Your task to perform on an android device: Open network settings Image 0: 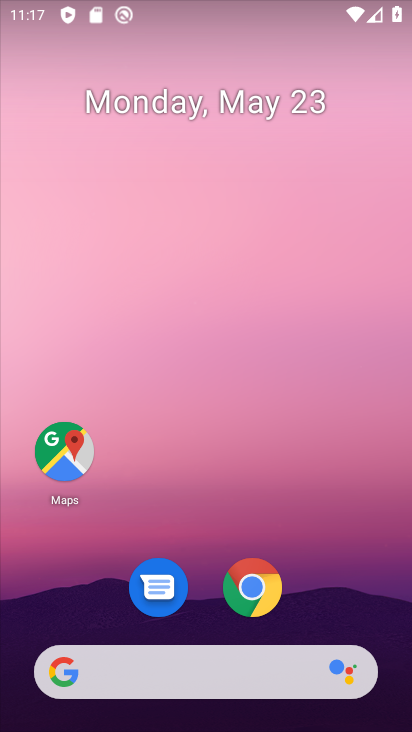
Step 0: drag from (358, 619) to (289, 348)
Your task to perform on an android device: Open network settings Image 1: 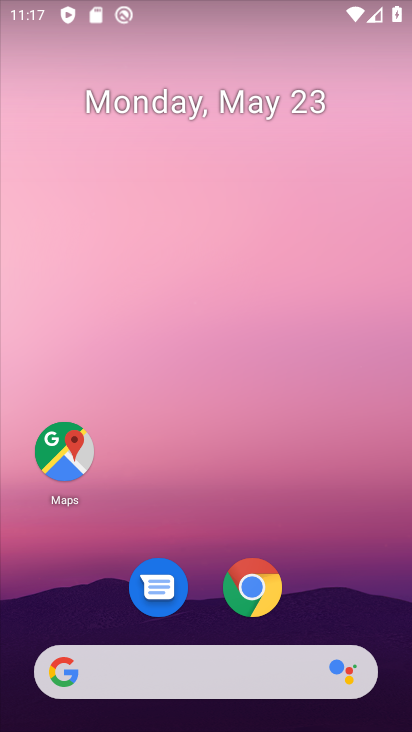
Step 1: drag from (336, 594) to (260, 199)
Your task to perform on an android device: Open network settings Image 2: 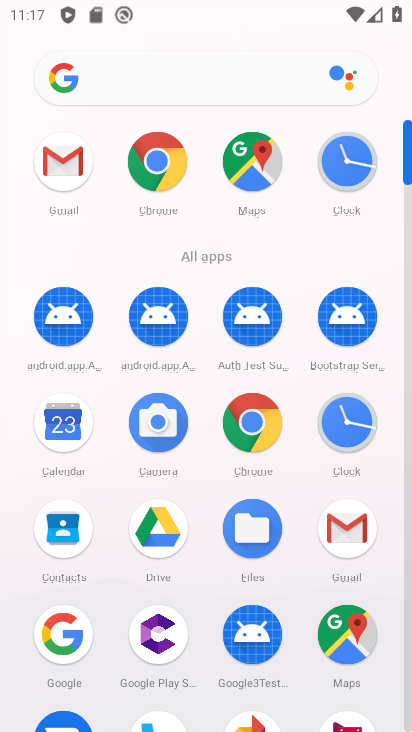
Step 2: click (411, 719)
Your task to perform on an android device: Open network settings Image 3: 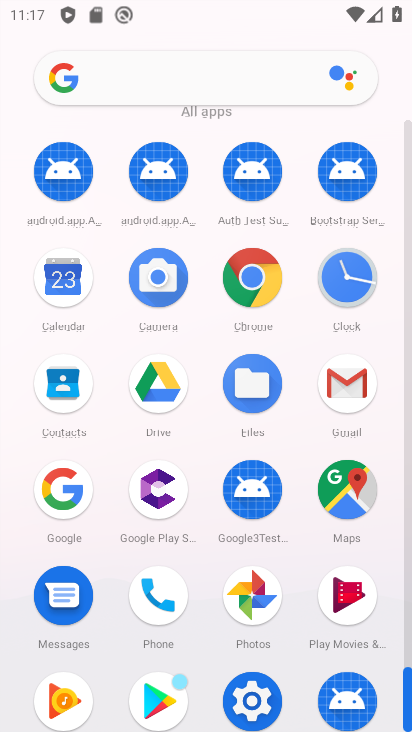
Step 3: click (246, 700)
Your task to perform on an android device: Open network settings Image 4: 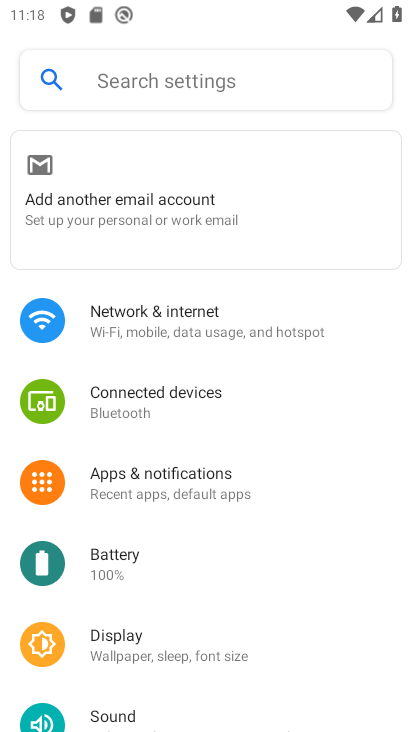
Step 4: click (221, 308)
Your task to perform on an android device: Open network settings Image 5: 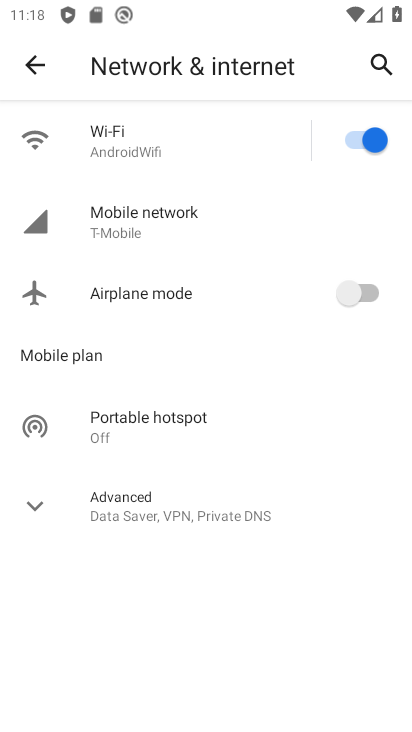
Step 5: task complete